Your task to perform on an android device: Search for macbook air on ebay, select the first entry, add it to the cart, then select checkout. Image 0: 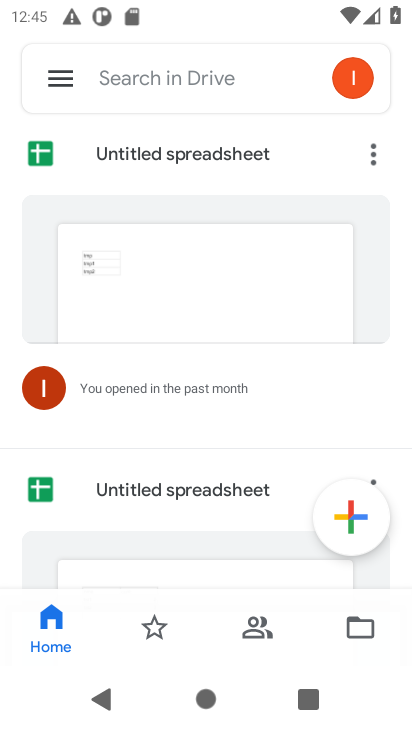
Step 0: press home button
Your task to perform on an android device: Search for macbook air on ebay, select the first entry, add it to the cart, then select checkout. Image 1: 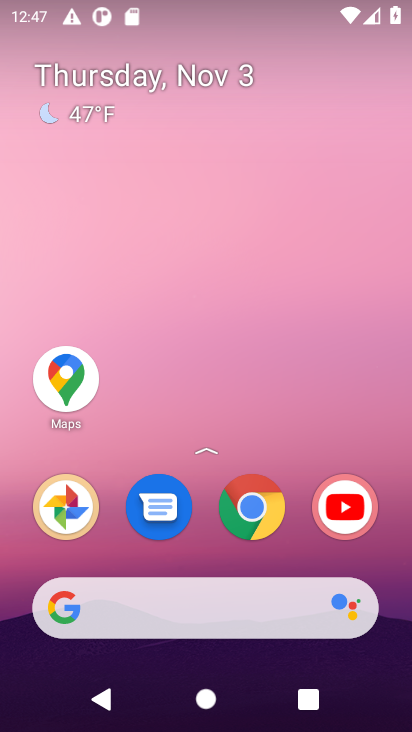
Step 1: click (147, 625)
Your task to perform on an android device: Search for macbook air on ebay, select the first entry, add it to the cart, then select checkout. Image 2: 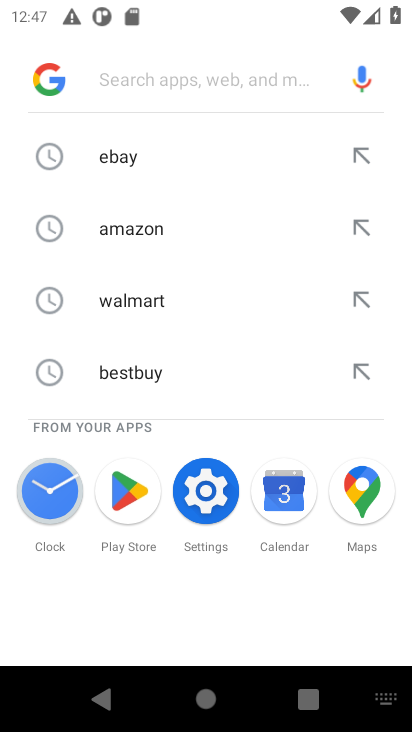
Step 2: click (119, 158)
Your task to perform on an android device: Search for macbook air on ebay, select the first entry, add it to the cart, then select checkout. Image 3: 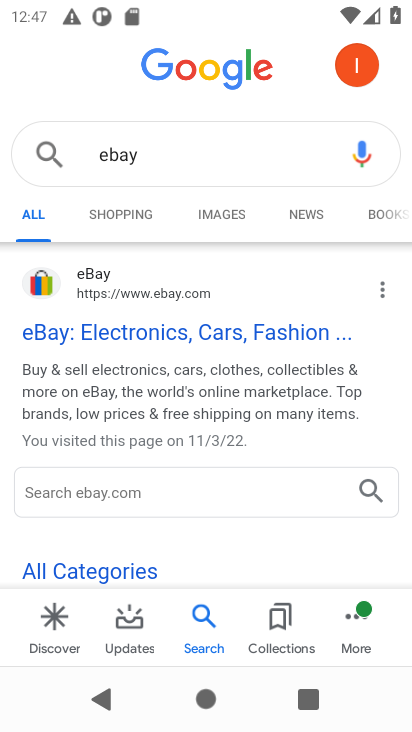
Step 3: click (144, 345)
Your task to perform on an android device: Search for macbook air on ebay, select the first entry, add it to the cart, then select checkout. Image 4: 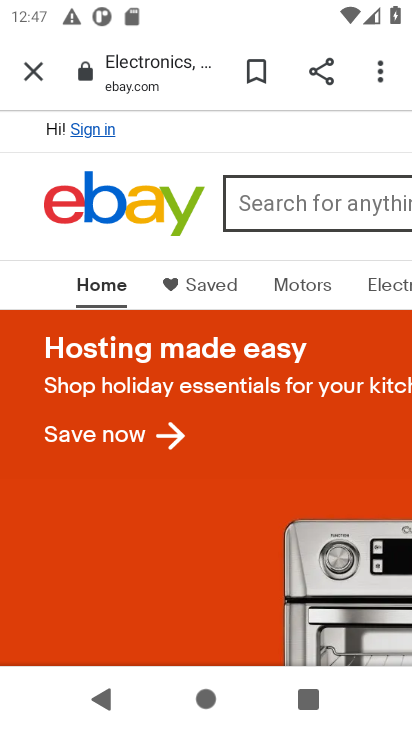
Step 4: click (263, 212)
Your task to perform on an android device: Search for macbook air on ebay, select the first entry, add it to the cart, then select checkout. Image 5: 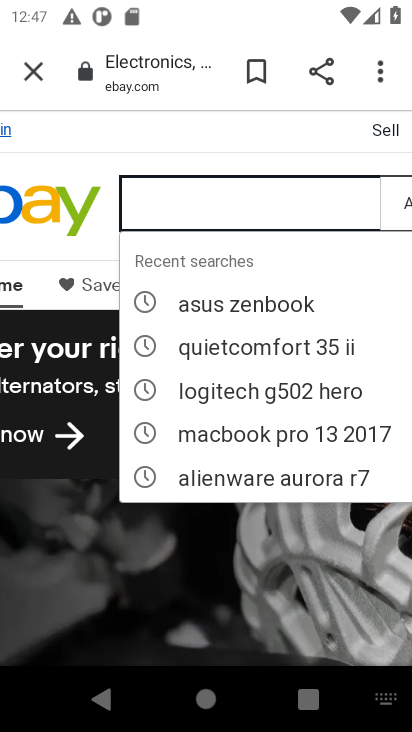
Step 5: type "macbook air"
Your task to perform on an android device: Search for macbook air on ebay, select the first entry, add it to the cart, then select checkout. Image 6: 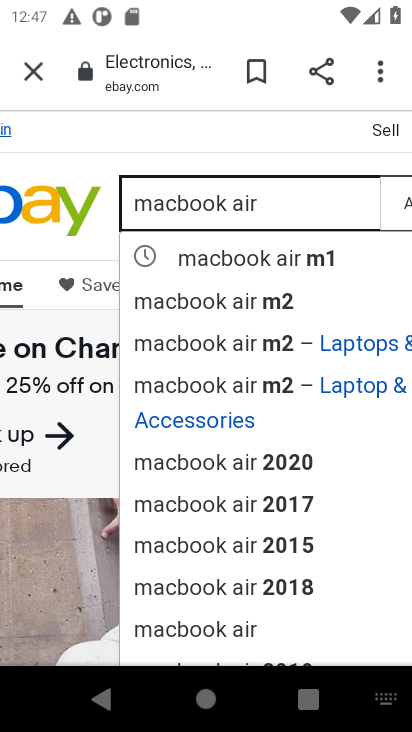
Step 6: click (272, 256)
Your task to perform on an android device: Search for macbook air on ebay, select the first entry, add it to the cart, then select checkout. Image 7: 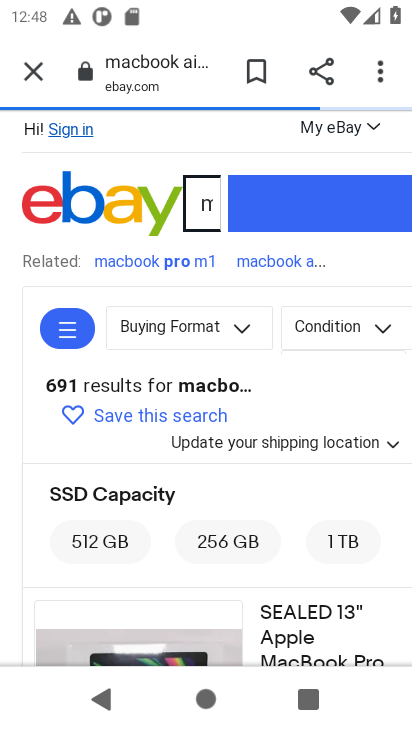
Step 7: click (190, 642)
Your task to perform on an android device: Search for macbook air on ebay, select the first entry, add it to the cart, then select checkout. Image 8: 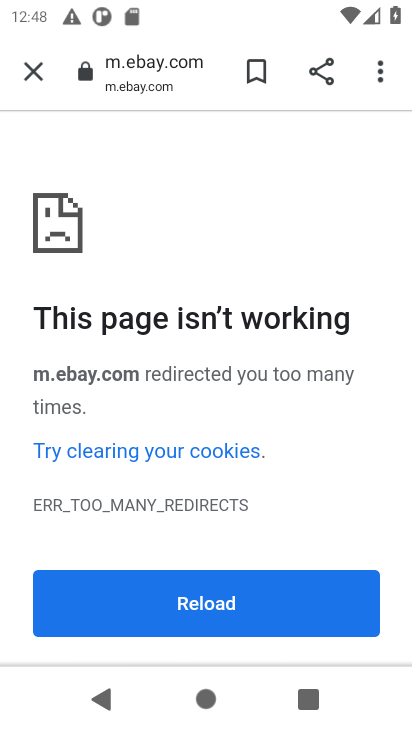
Step 8: task complete